Your task to perform on an android device: turn on wifi Image 0: 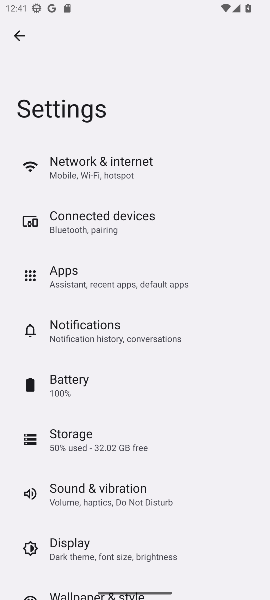
Step 0: click (79, 165)
Your task to perform on an android device: turn on wifi Image 1: 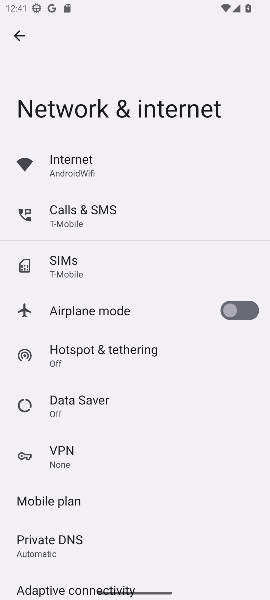
Step 1: click (65, 159)
Your task to perform on an android device: turn on wifi Image 2: 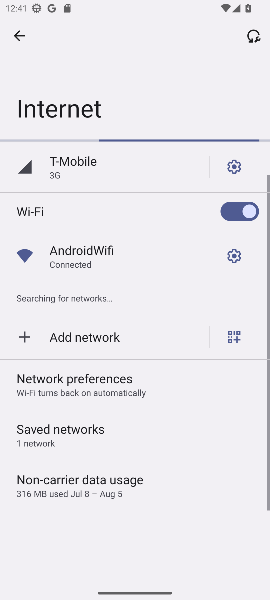
Step 2: task complete